Your task to perform on an android device: turn pop-ups on in chrome Image 0: 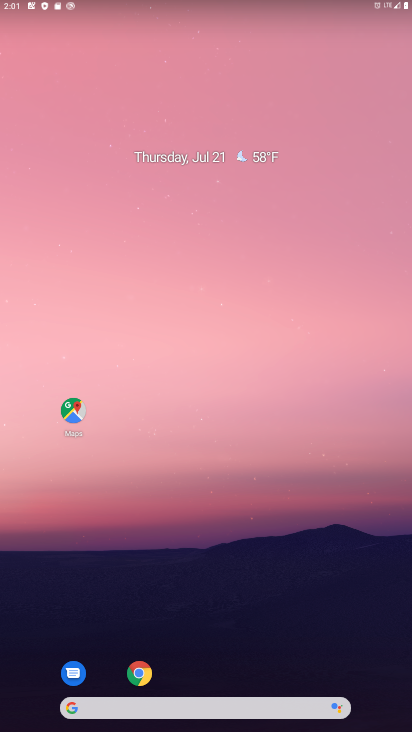
Step 0: click (137, 680)
Your task to perform on an android device: turn pop-ups on in chrome Image 1: 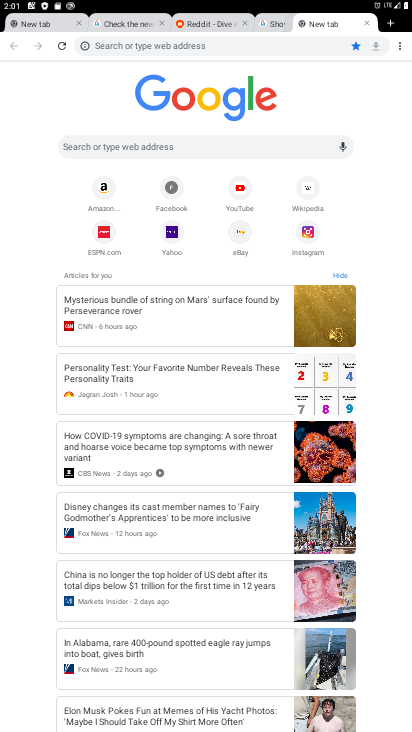
Step 1: click (404, 40)
Your task to perform on an android device: turn pop-ups on in chrome Image 2: 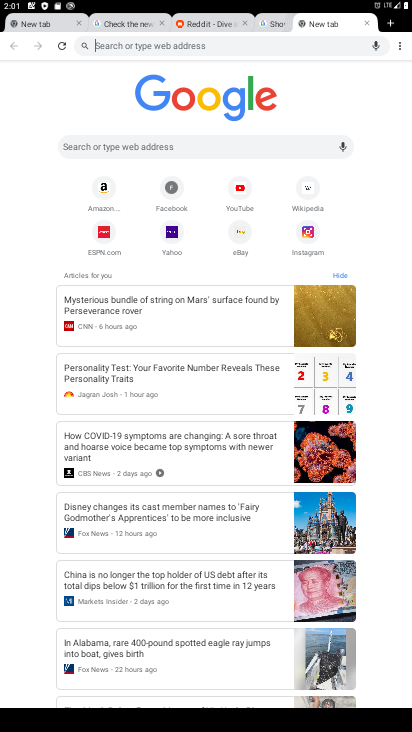
Step 2: click (411, 31)
Your task to perform on an android device: turn pop-ups on in chrome Image 3: 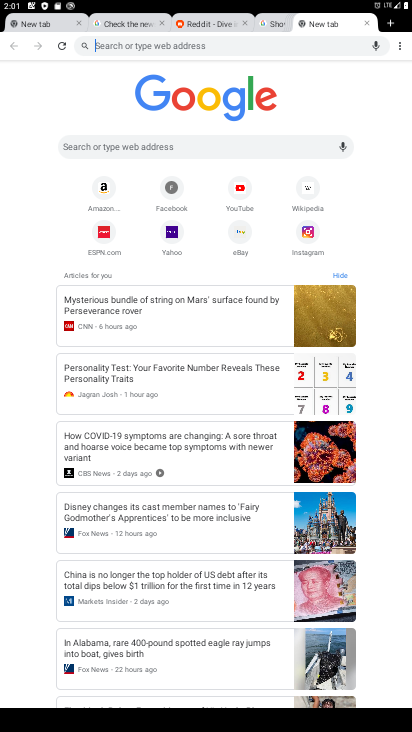
Step 3: click (407, 50)
Your task to perform on an android device: turn pop-ups on in chrome Image 4: 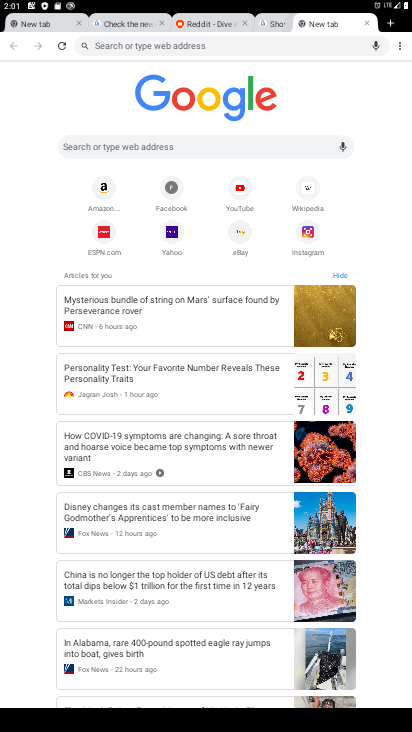
Step 4: click (407, 50)
Your task to perform on an android device: turn pop-ups on in chrome Image 5: 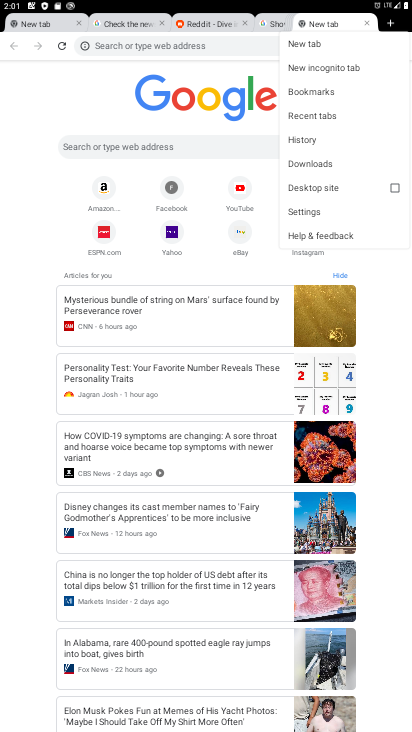
Step 5: click (316, 208)
Your task to perform on an android device: turn pop-ups on in chrome Image 6: 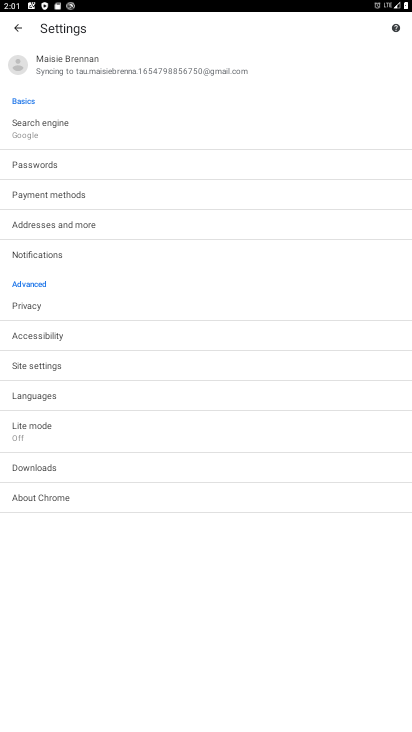
Step 6: click (77, 363)
Your task to perform on an android device: turn pop-ups on in chrome Image 7: 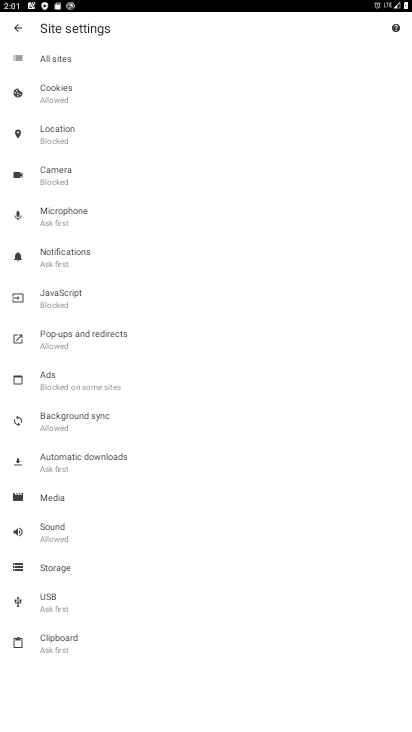
Step 7: click (85, 328)
Your task to perform on an android device: turn pop-ups on in chrome Image 8: 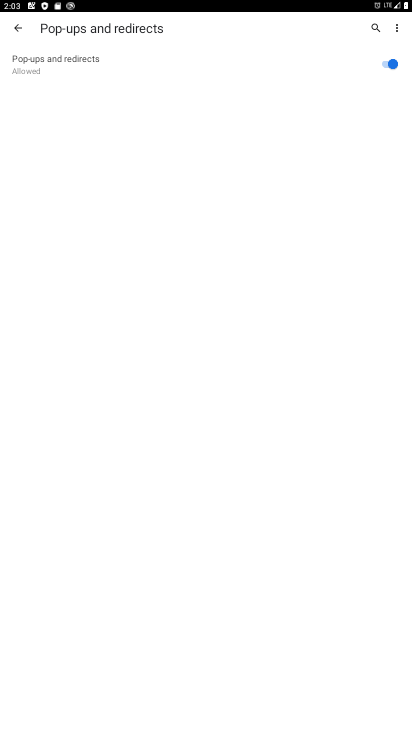
Step 8: task complete